Your task to perform on an android device: check google app version Image 0: 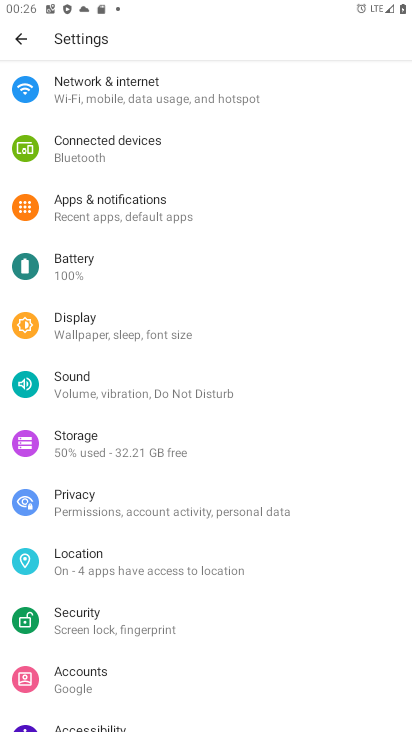
Step 0: press home button
Your task to perform on an android device: check google app version Image 1: 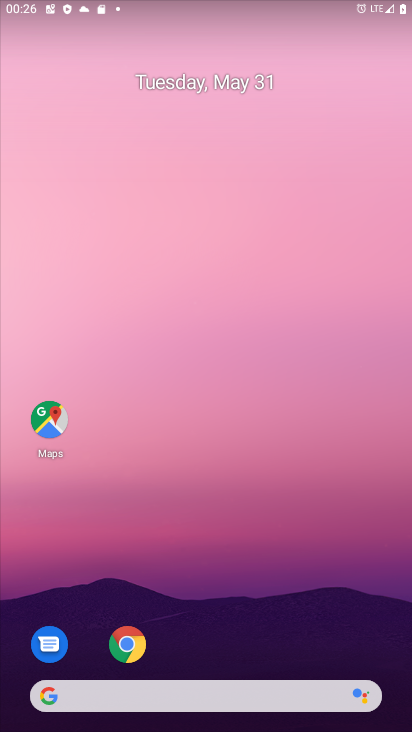
Step 1: drag from (369, 642) to (315, 196)
Your task to perform on an android device: check google app version Image 2: 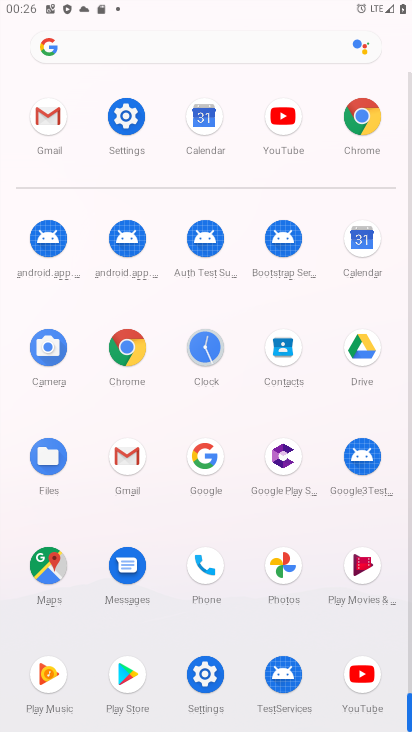
Step 2: click (125, 350)
Your task to perform on an android device: check google app version Image 3: 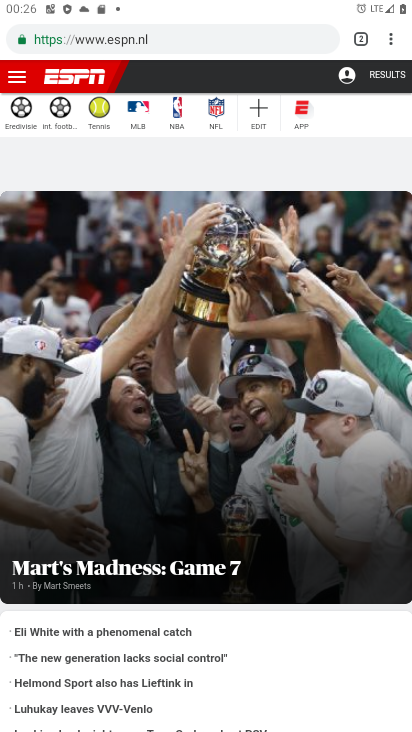
Step 3: click (388, 40)
Your task to perform on an android device: check google app version Image 4: 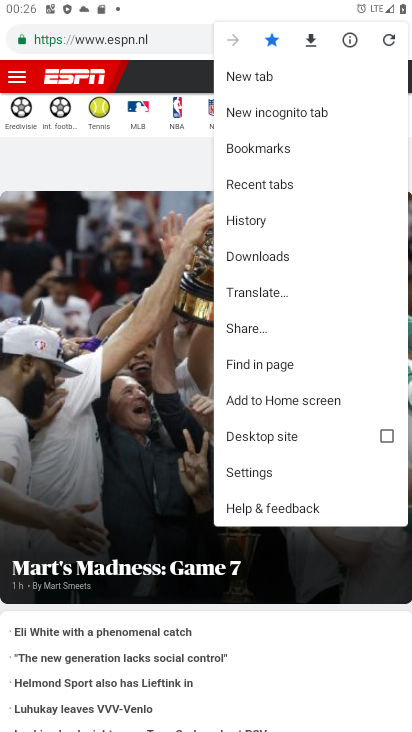
Step 4: click (251, 469)
Your task to perform on an android device: check google app version Image 5: 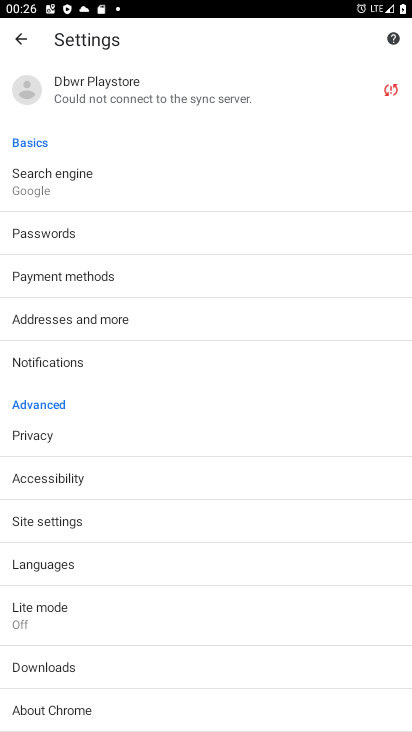
Step 5: click (82, 702)
Your task to perform on an android device: check google app version Image 6: 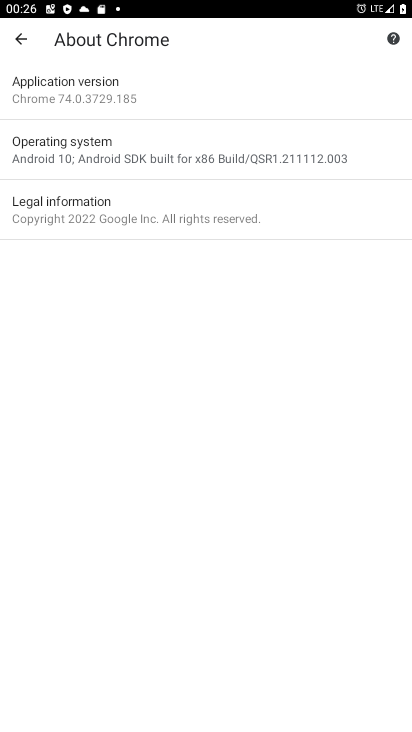
Step 6: click (91, 81)
Your task to perform on an android device: check google app version Image 7: 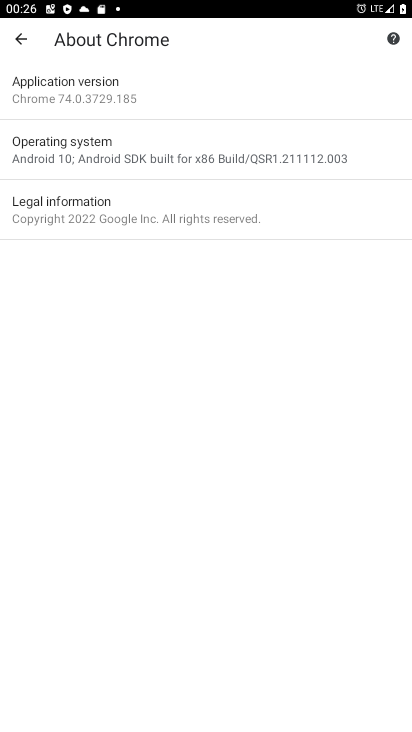
Step 7: task complete